Your task to perform on an android device: Open eBay Image 0: 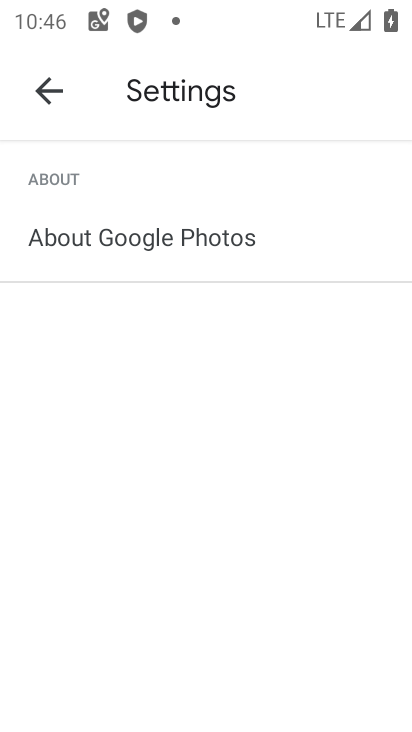
Step 0: press home button
Your task to perform on an android device: Open eBay Image 1: 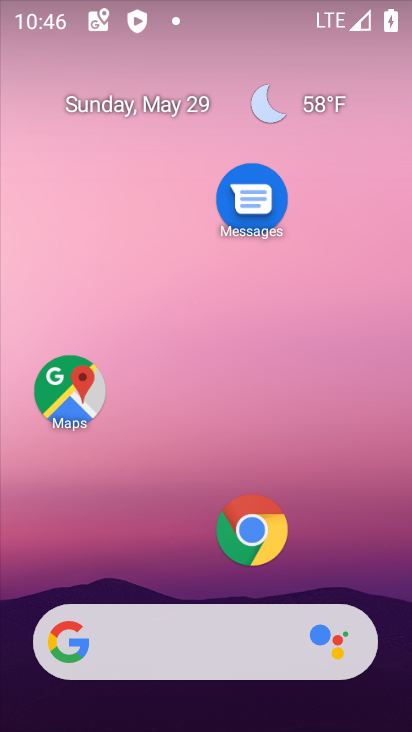
Step 1: click (271, 552)
Your task to perform on an android device: Open eBay Image 2: 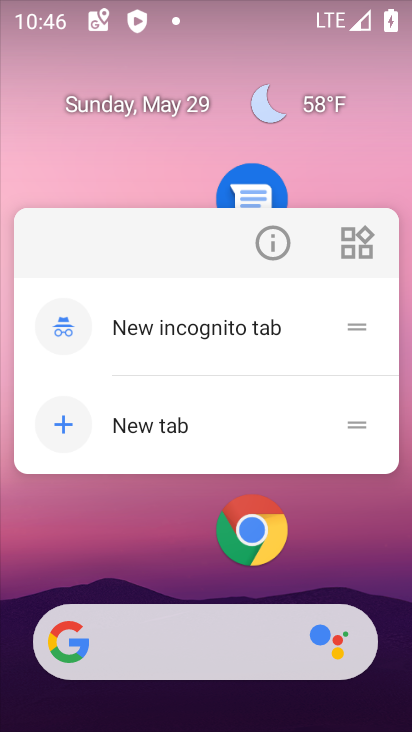
Step 2: click (227, 525)
Your task to perform on an android device: Open eBay Image 3: 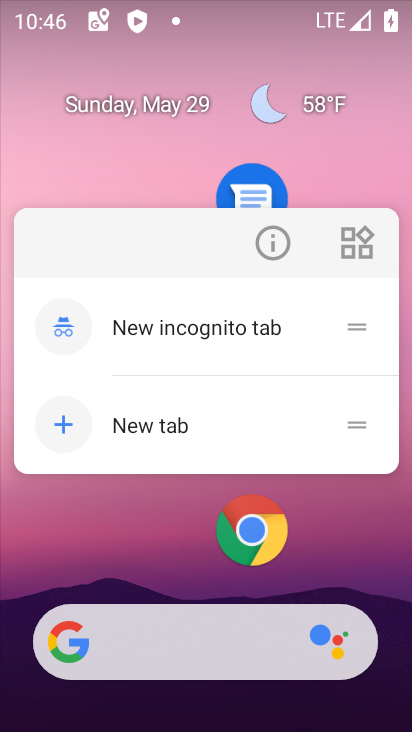
Step 3: click (256, 505)
Your task to perform on an android device: Open eBay Image 4: 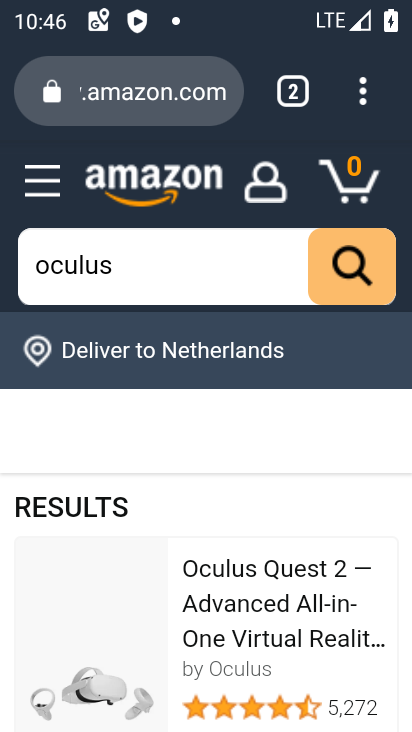
Step 4: click (194, 76)
Your task to perform on an android device: Open eBay Image 5: 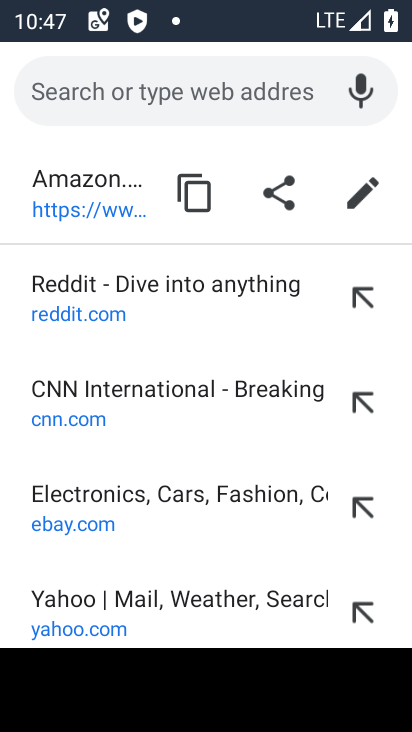
Step 5: type "eBay"
Your task to perform on an android device: Open eBay Image 6: 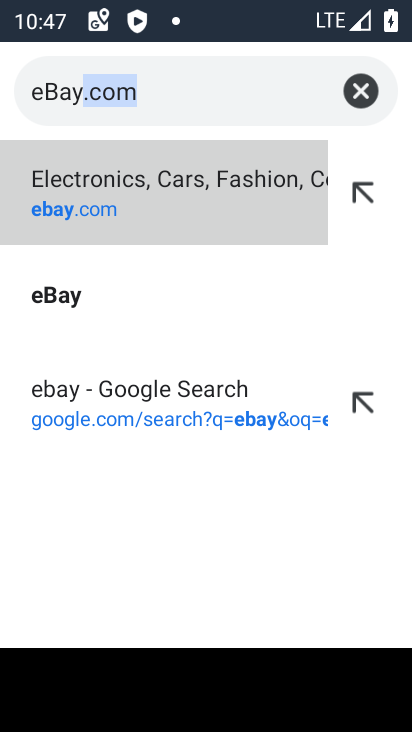
Step 6: click (194, 216)
Your task to perform on an android device: Open eBay Image 7: 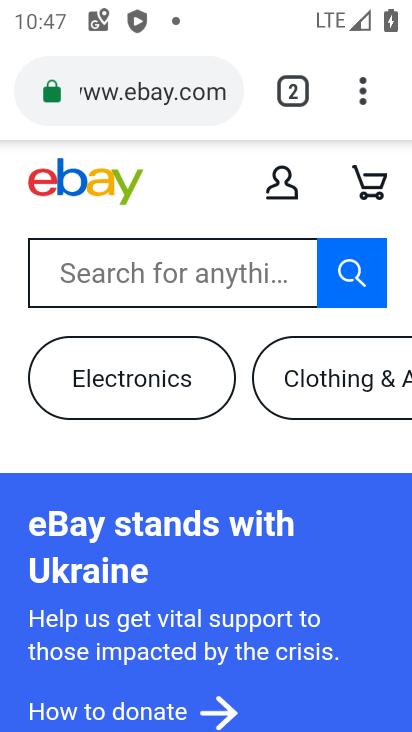
Step 7: task complete